Your task to perform on an android device: set an alarm Image 0: 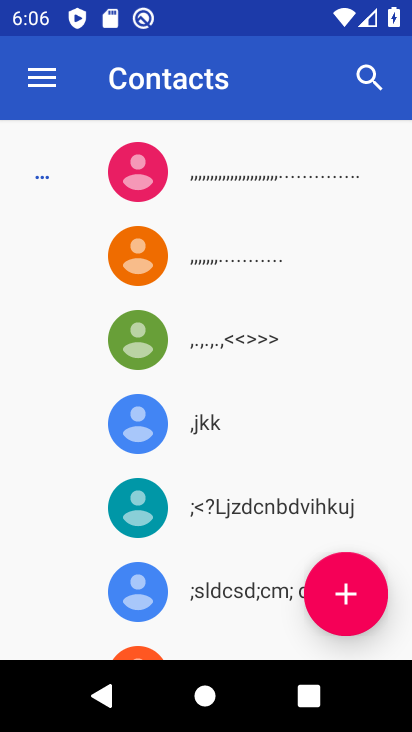
Step 0: press home button
Your task to perform on an android device: set an alarm Image 1: 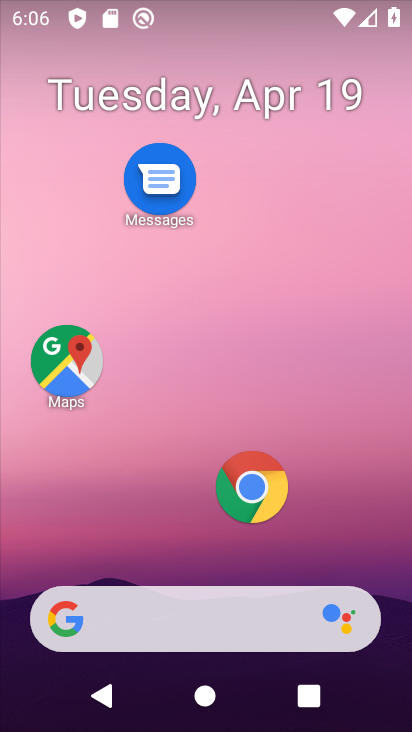
Step 1: drag from (199, 522) to (260, 41)
Your task to perform on an android device: set an alarm Image 2: 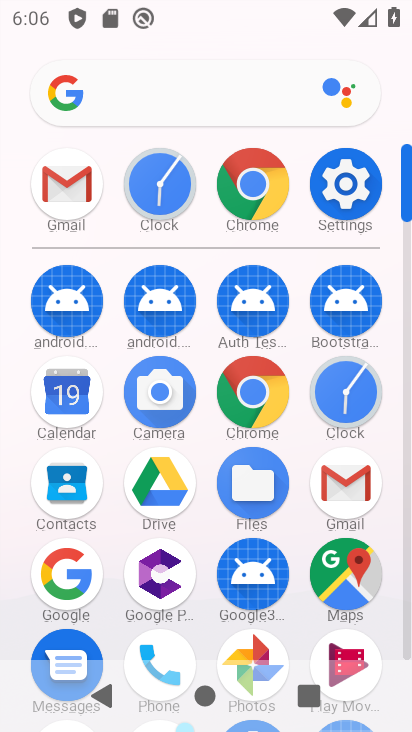
Step 2: click (341, 384)
Your task to perform on an android device: set an alarm Image 3: 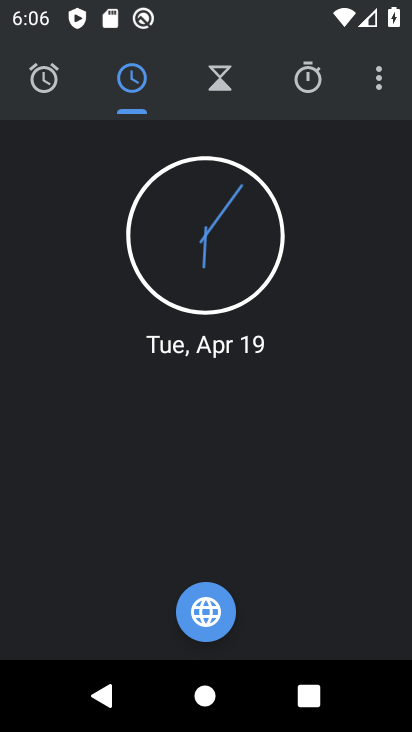
Step 3: click (41, 78)
Your task to perform on an android device: set an alarm Image 4: 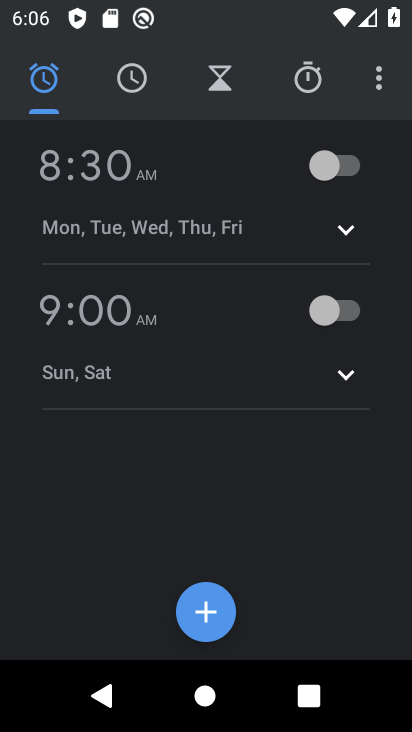
Step 4: click (169, 302)
Your task to perform on an android device: set an alarm Image 5: 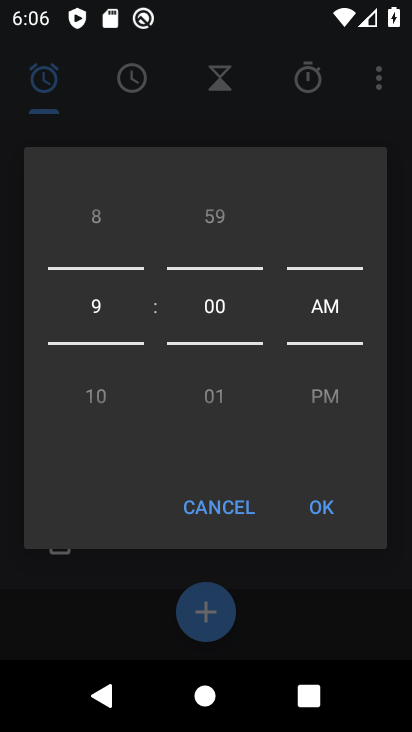
Step 5: click (323, 514)
Your task to perform on an android device: set an alarm Image 6: 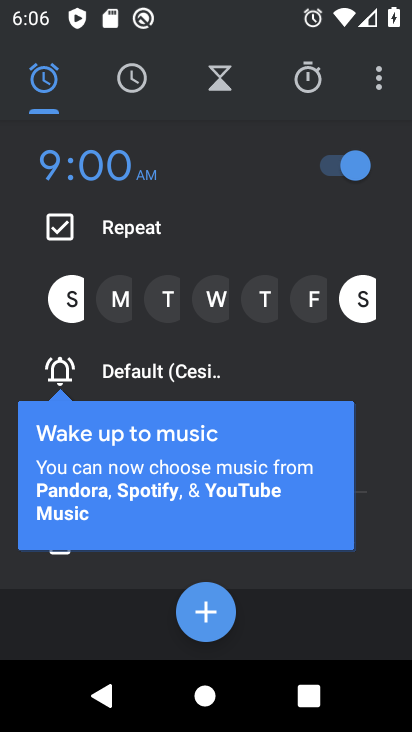
Step 6: click (139, 370)
Your task to perform on an android device: set an alarm Image 7: 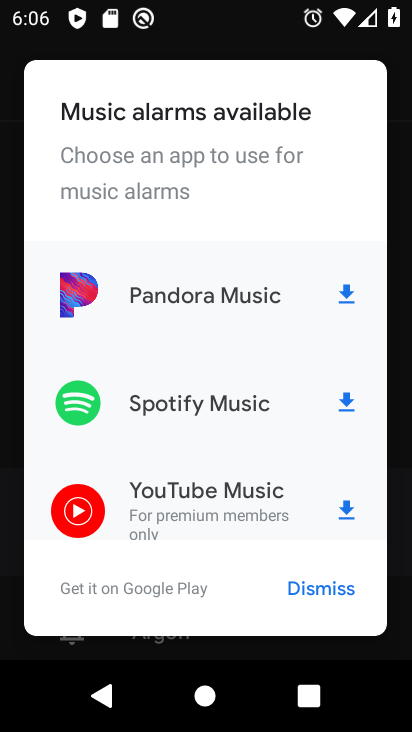
Step 7: click (327, 587)
Your task to perform on an android device: set an alarm Image 8: 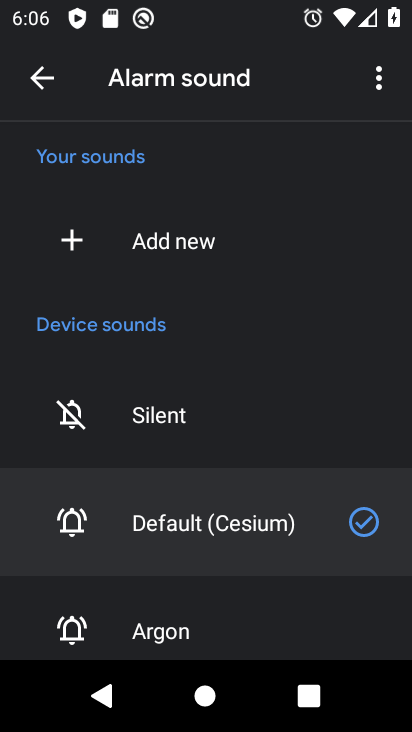
Step 8: drag from (202, 564) to (273, 187)
Your task to perform on an android device: set an alarm Image 9: 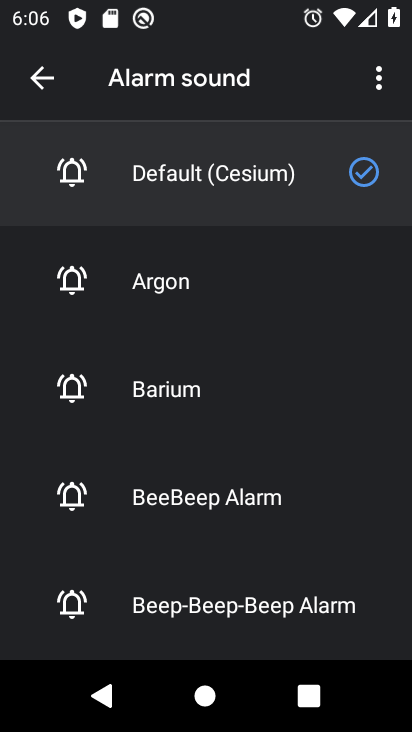
Step 9: drag from (219, 558) to (250, 302)
Your task to perform on an android device: set an alarm Image 10: 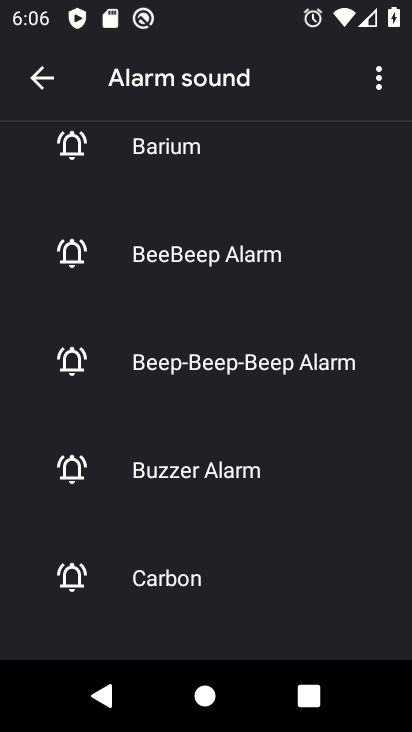
Step 10: click (213, 580)
Your task to perform on an android device: set an alarm Image 11: 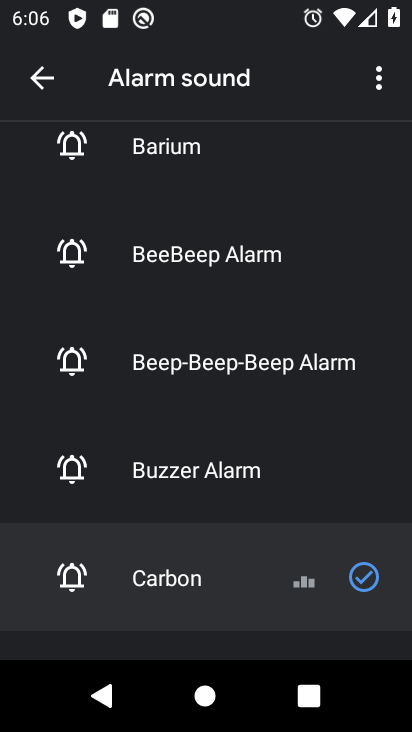
Step 11: task complete